Your task to perform on an android device: install app "Pinterest" Image 0: 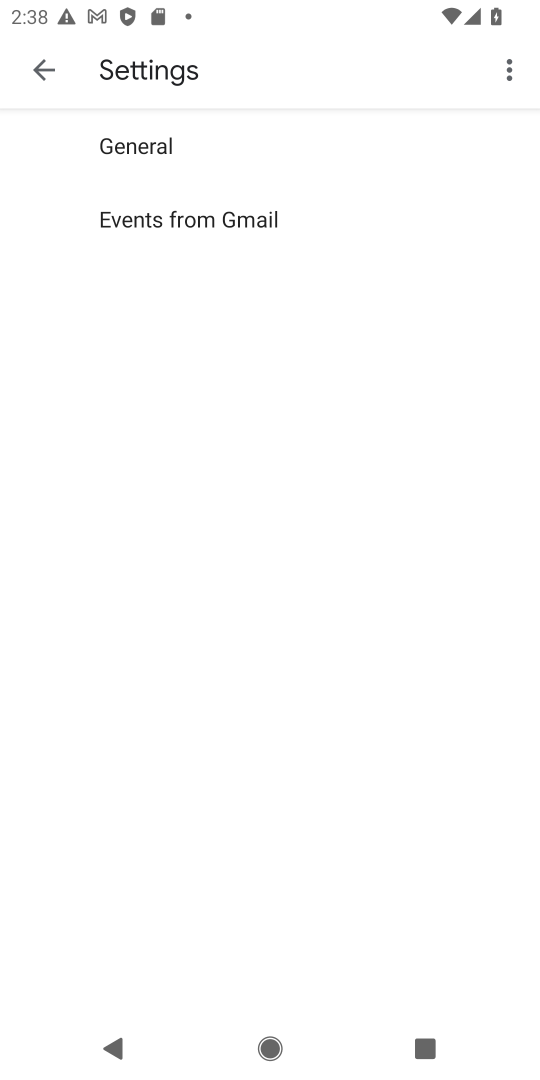
Step 0: click (51, 49)
Your task to perform on an android device: install app "Pinterest" Image 1: 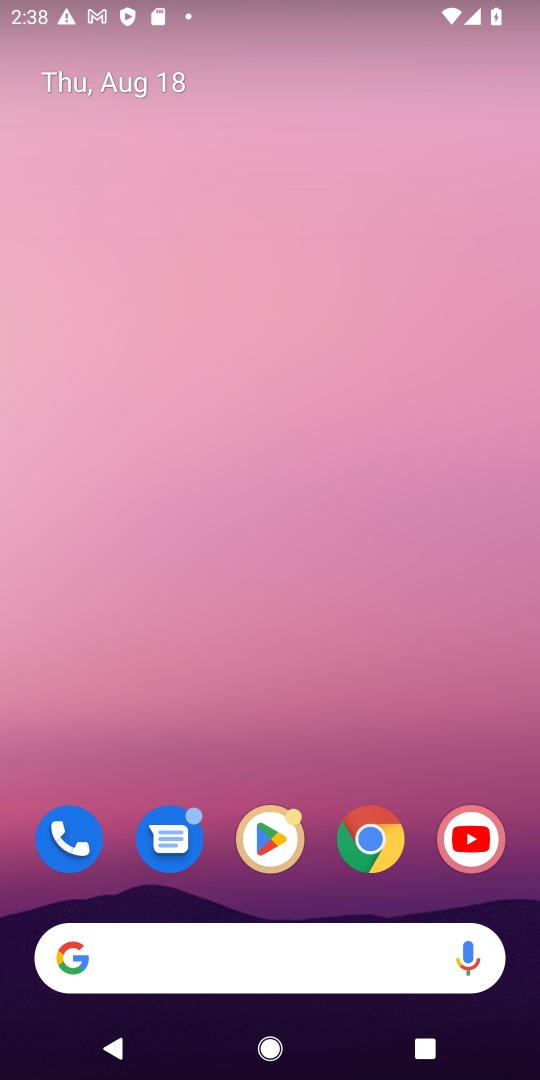
Step 1: click (278, 836)
Your task to perform on an android device: install app "Pinterest" Image 2: 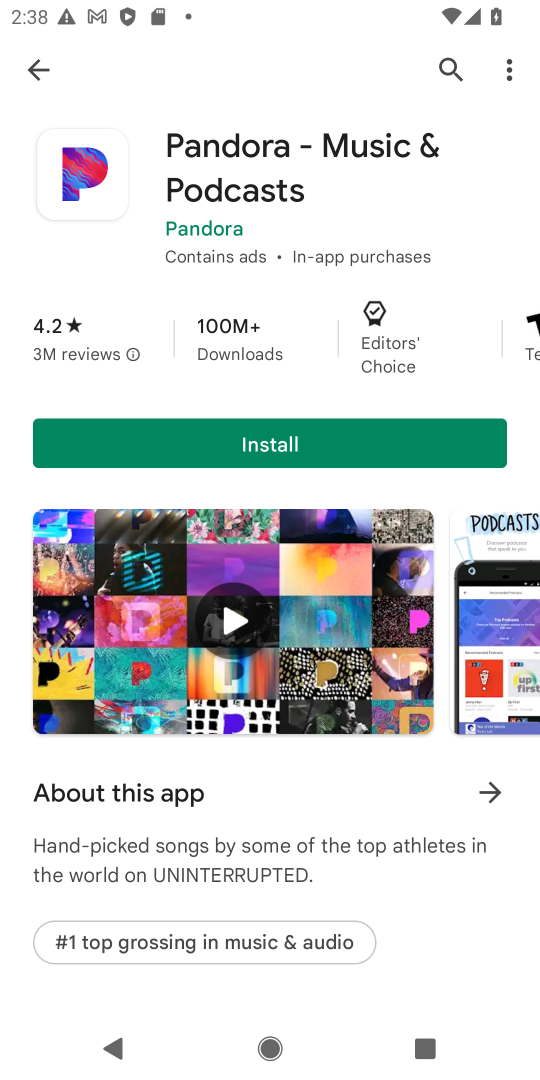
Step 2: click (52, 60)
Your task to perform on an android device: install app "Pinterest" Image 3: 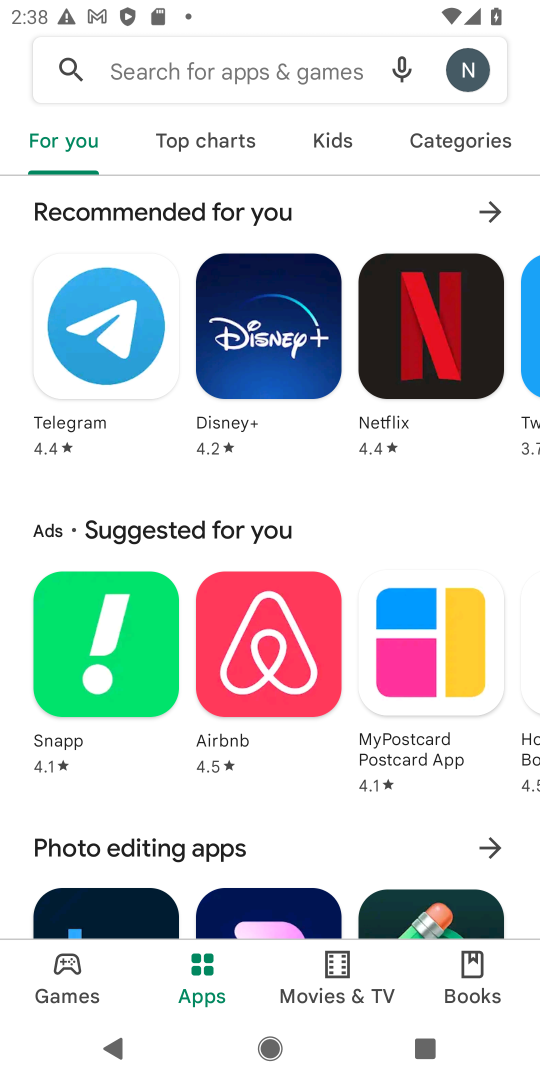
Step 3: click (163, 83)
Your task to perform on an android device: install app "Pinterest" Image 4: 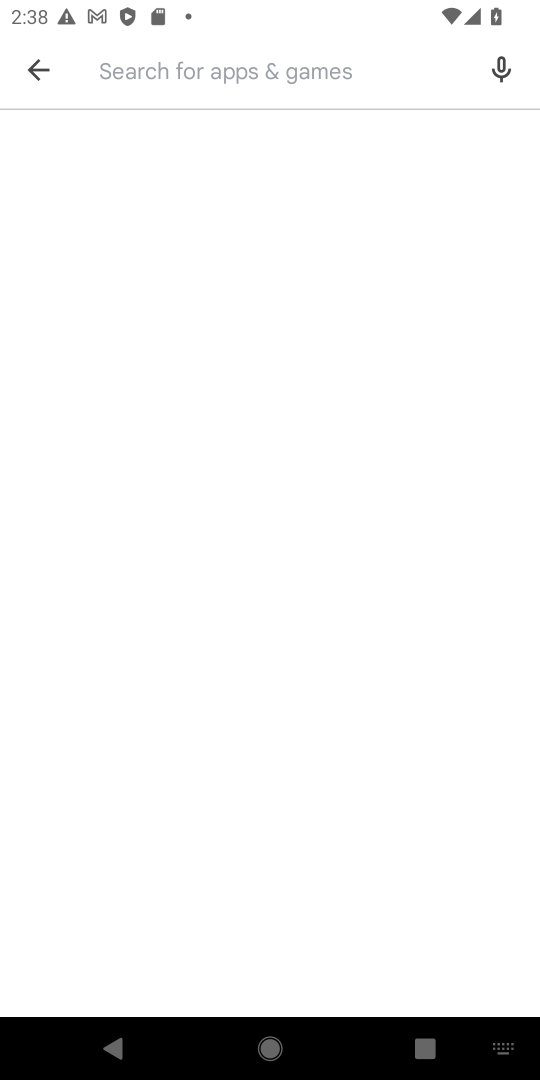
Step 4: type "Pinterest"
Your task to perform on an android device: install app "Pinterest" Image 5: 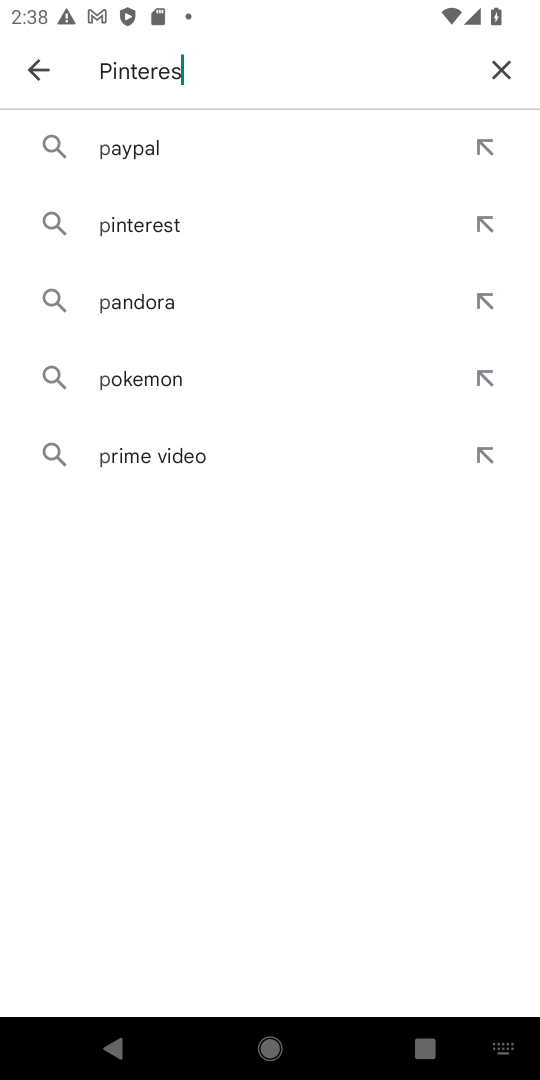
Step 5: type ""
Your task to perform on an android device: install app "Pinterest" Image 6: 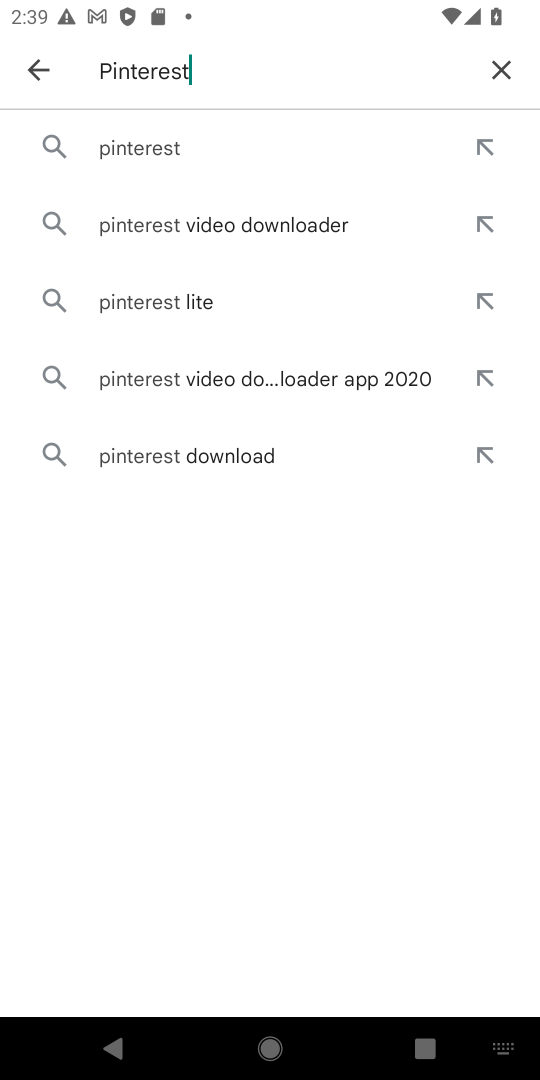
Step 6: click (153, 146)
Your task to perform on an android device: install app "Pinterest" Image 7: 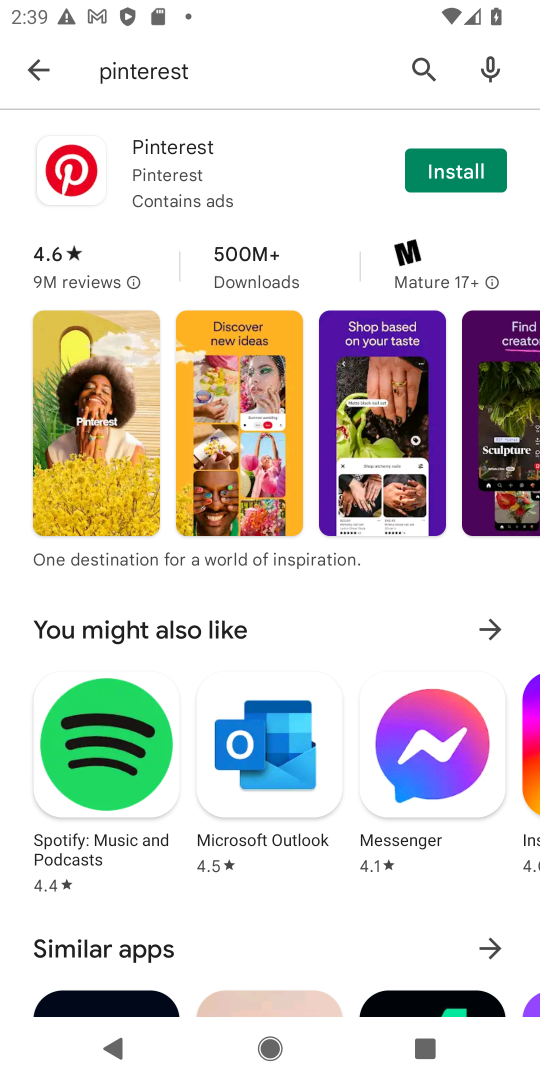
Step 7: click (412, 156)
Your task to perform on an android device: install app "Pinterest" Image 8: 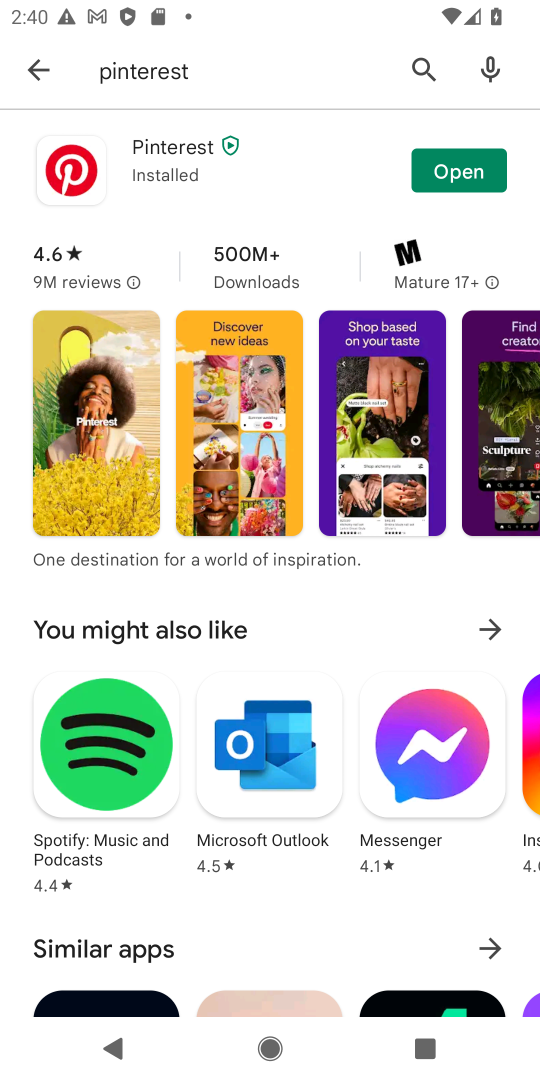
Step 8: click (457, 192)
Your task to perform on an android device: install app "Pinterest" Image 9: 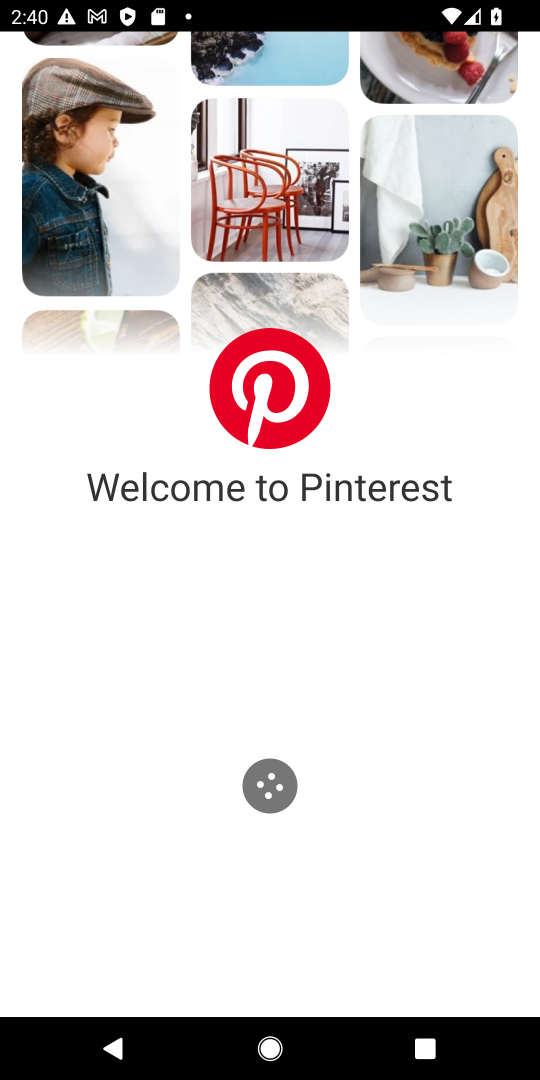
Step 9: task complete